Your task to perform on an android device: open sync settings in chrome Image 0: 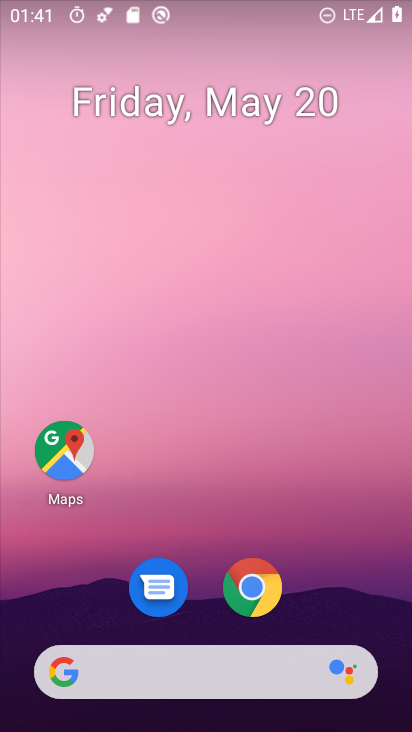
Step 0: drag from (347, 612) to (365, 235)
Your task to perform on an android device: open sync settings in chrome Image 1: 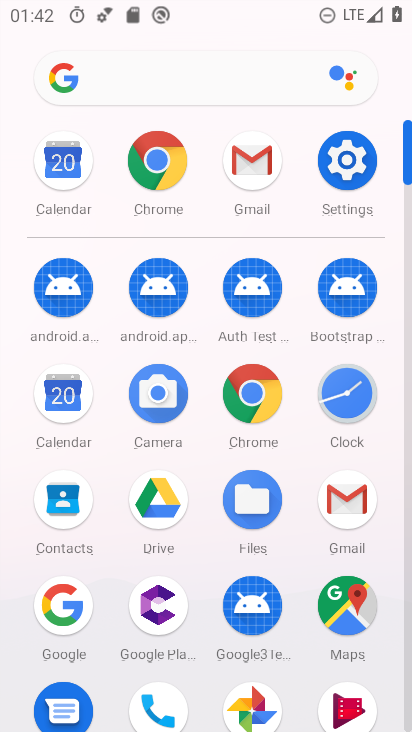
Step 1: click (253, 397)
Your task to perform on an android device: open sync settings in chrome Image 2: 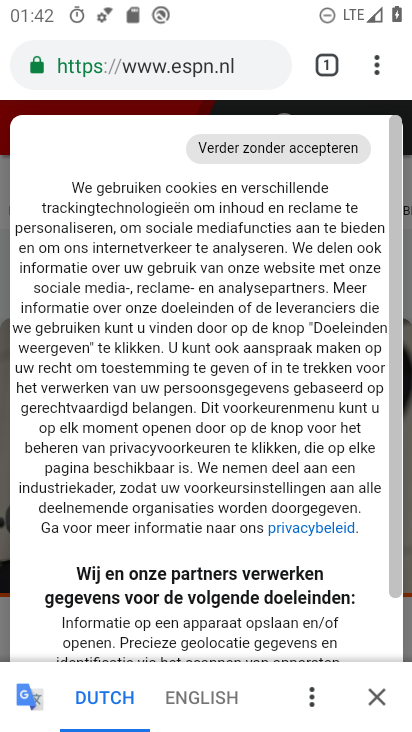
Step 2: click (377, 74)
Your task to perform on an android device: open sync settings in chrome Image 3: 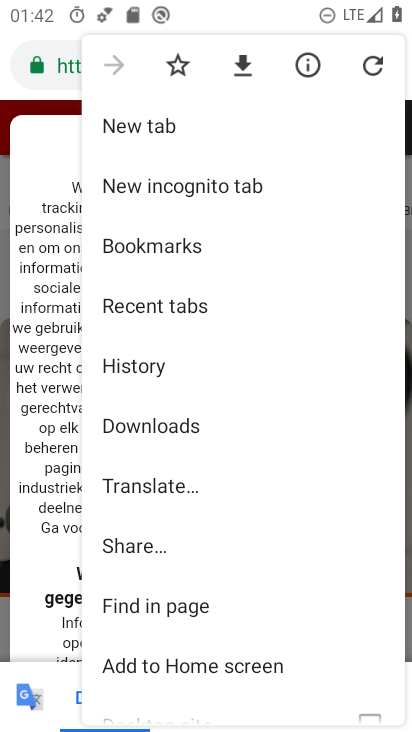
Step 3: drag from (304, 416) to (302, 233)
Your task to perform on an android device: open sync settings in chrome Image 4: 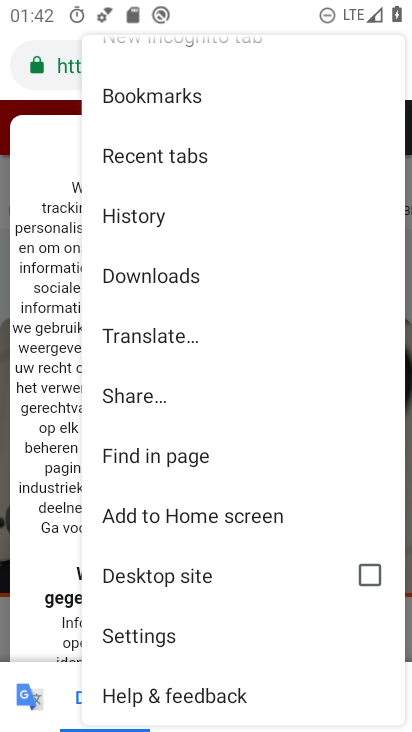
Step 4: drag from (322, 450) to (332, 261)
Your task to perform on an android device: open sync settings in chrome Image 5: 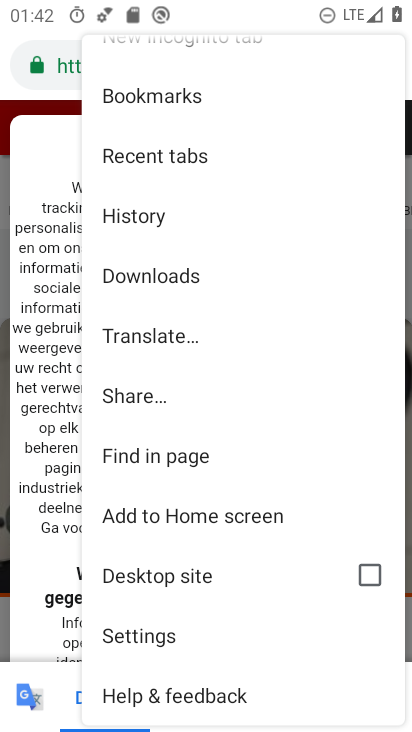
Step 5: drag from (326, 492) to (323, 265)
Your task to perform on an android device: open sync settings in chrome Image 6: 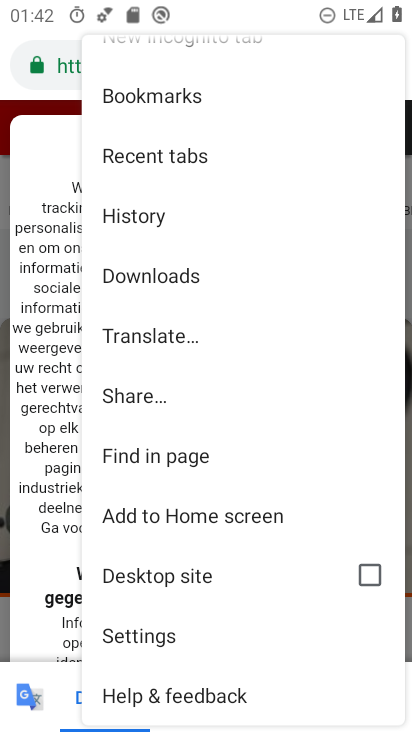
Step 6: click (165, 634)
Your task to perform on an android device: open sync settings in chrome Image 7: 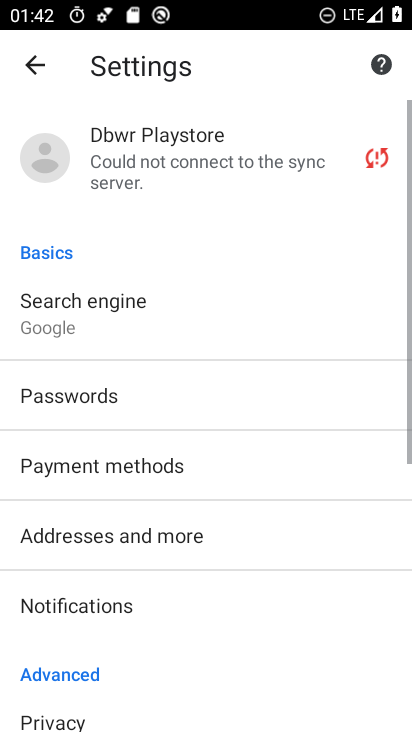
Step 7: drag from (280, 572) to (294, 474)
Your task to perform on an android device: open sync settings in chrome Image 8: 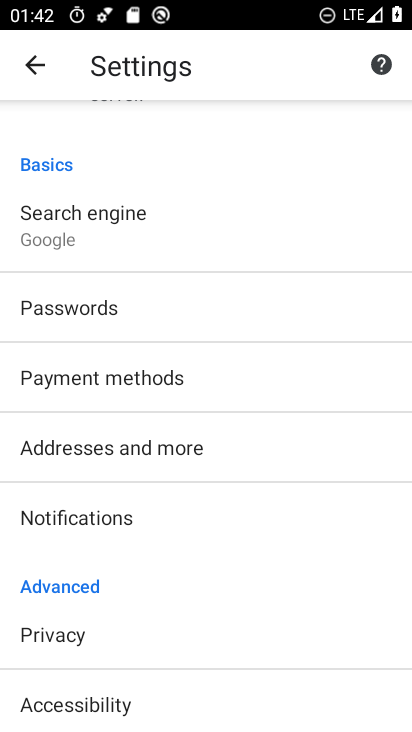
Step 8: drag from (299, 582) to (303, 543)
Your task to perform on an android device: open sync settings in chrome Image 9: 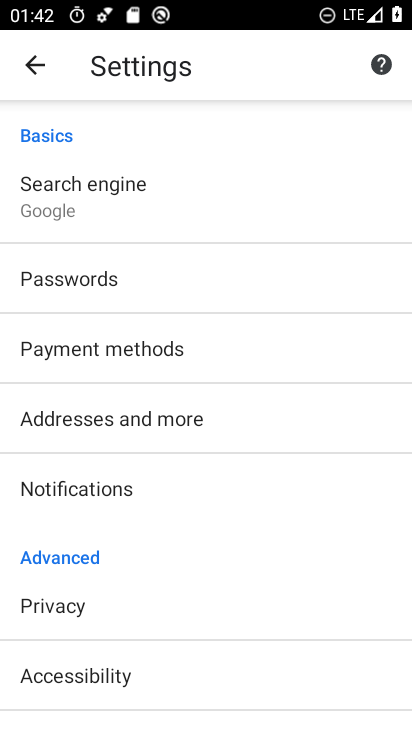
Step 9: drag from (298, 601) to (303, 496)
Your task to perform on an android device: open sync settings in chrome Image 10: 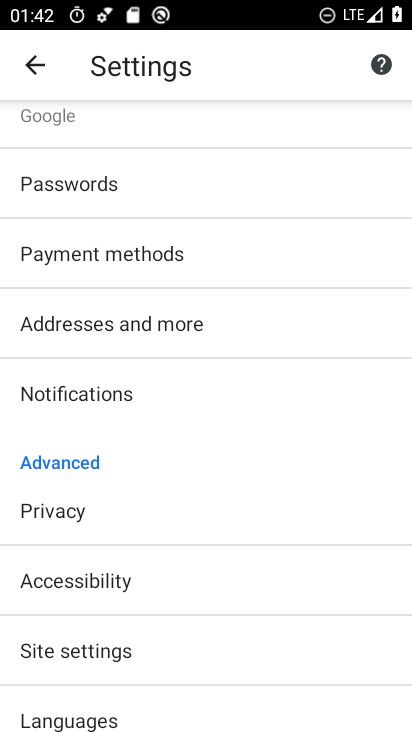
Step 10: drag from (334, 627) to (330, 541)
Your task to perform on an android device: open sync settings in chrome Image 11: 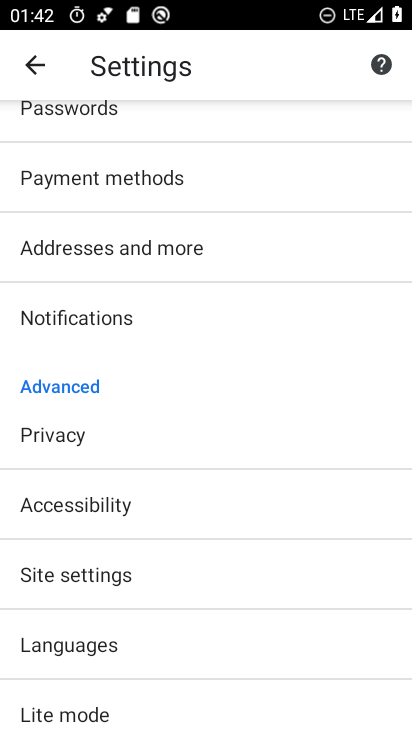
Step 11: drag from (318, 656) to (335, 561)
Your task to perform on an android device: open sync settings in chrome Image 12: 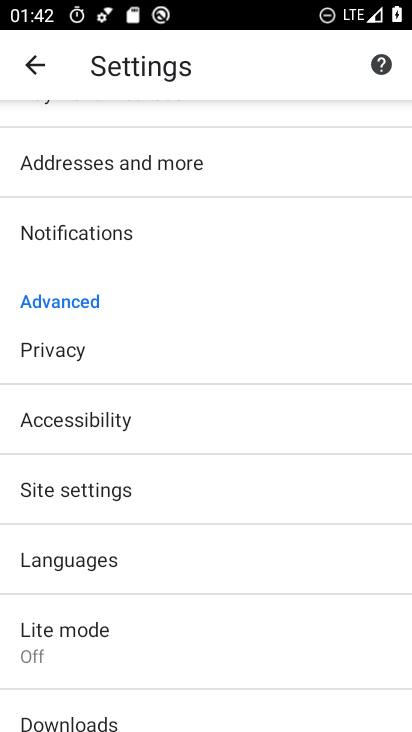
Step 12: drag from (318, 659) to (319, 582)
Your task to perform on an android device: open sync settings in chrome Image 13: 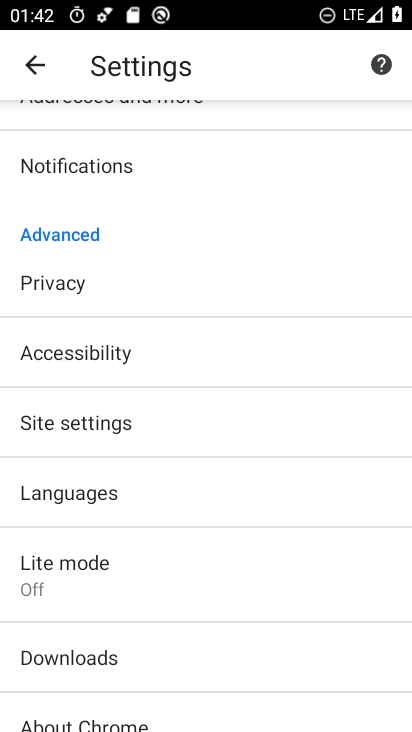
Step 13: drag from (317, 657) to (322, 585)
Your task to perform on an android device: open sync settings in chrome Image 14: 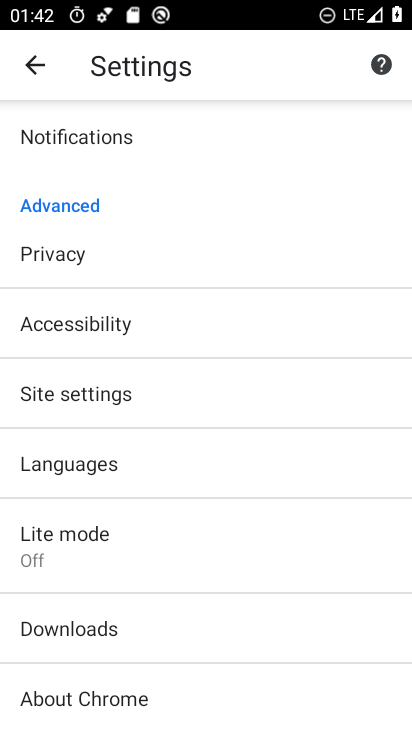
Step 14: drag from (326, 649) to (322, 583)
Your task to perform on an android device: open sync settings in chrome Image 15: 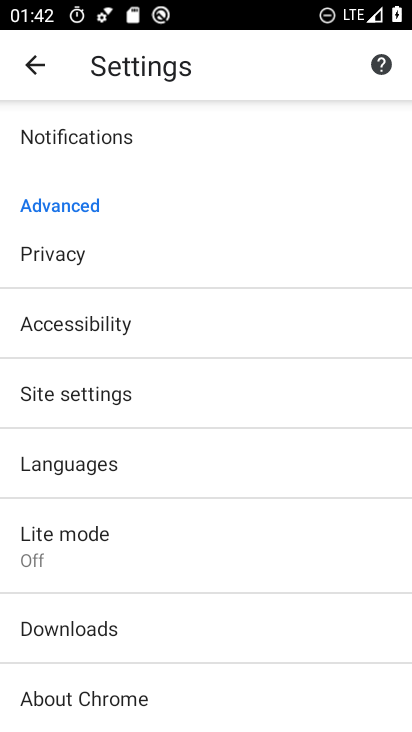
Step 15: drag from (309, 647) to (314, 567)
Your task to perform on an android device: open sync settings in chrome Image 16: 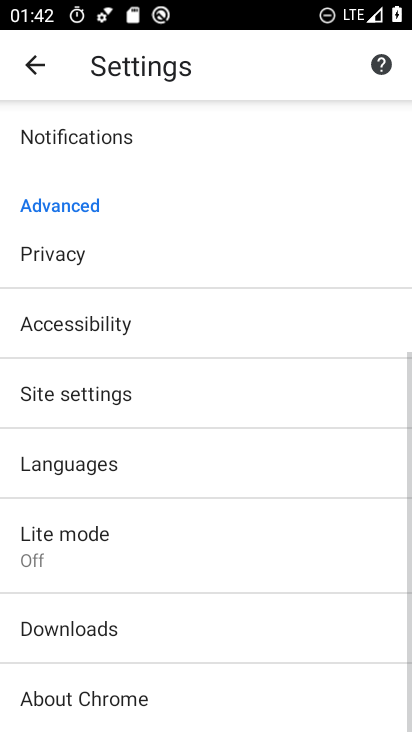
Step 16: drag from (338, 391) to (334, 469)
Your task to perform on an android device: open sync settings in chrome Image 17: 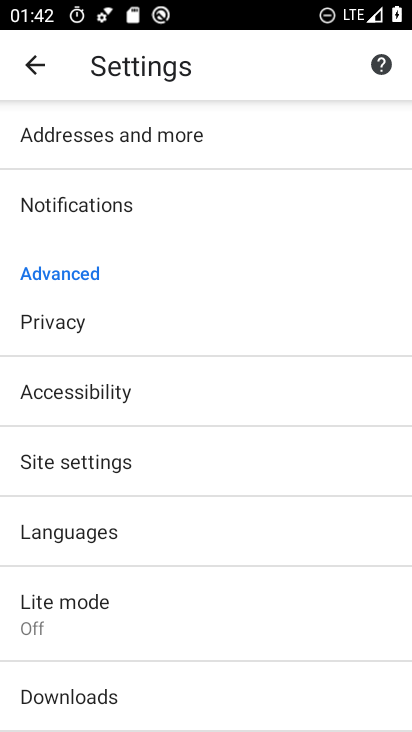
Step 17: drag from (338, 349) to (342, 406)
Your task to perform on an android device: open sync settings in chrome Image 18: 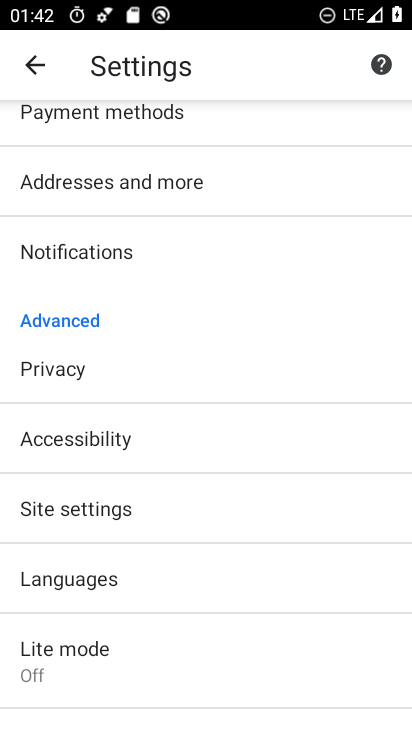
Step 18: drag from (333, 302) to (327, 366)
Your task to perform on an android device: open sync settings in chrome Image 19: 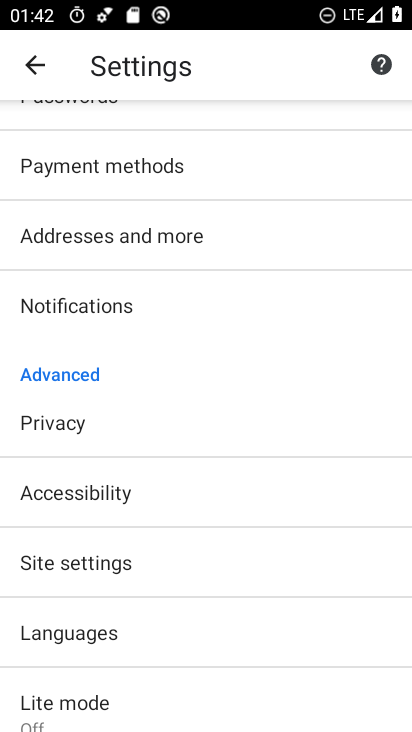
Step 19: drag from (321, 309) to (321, 364)
Your task to perform on an android device: open sync settings in chrome Image 20: 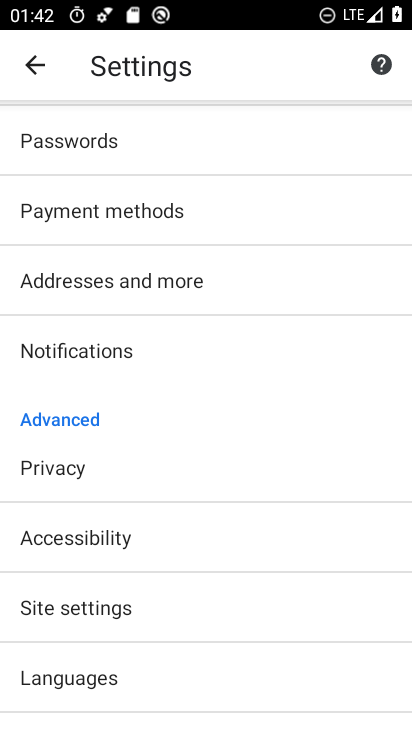
Step 20: click (219, 626)
Your task to perform on an android device: open sync settings in chrome Image 21: 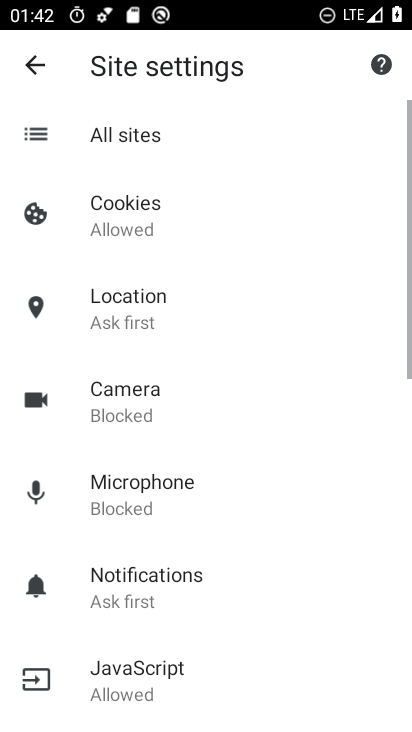
Step 21: drag from (230, 654) to (235, 569)
Your task to perform on an android device: open sync settings in chrome Image 22: 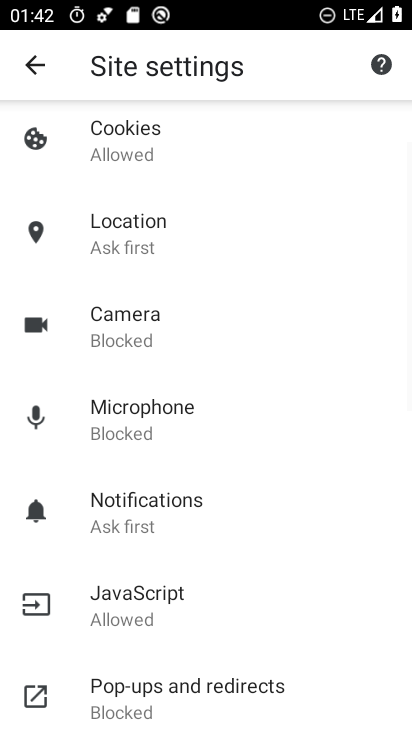
Step 22: drag from (250, 641) to (257, 534)
Your task to perform on an android device: open sync settings in chrome Image 23: 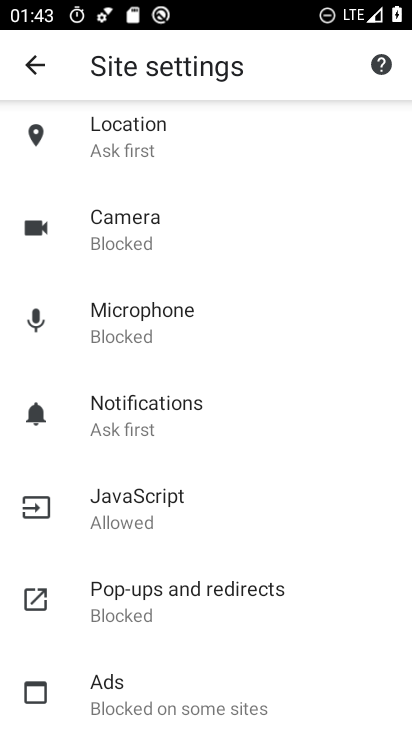
Step 23: drag from (262, 648) to (271, 543)
Your task to perform on an android device: open sync settings in chrome Image 24: 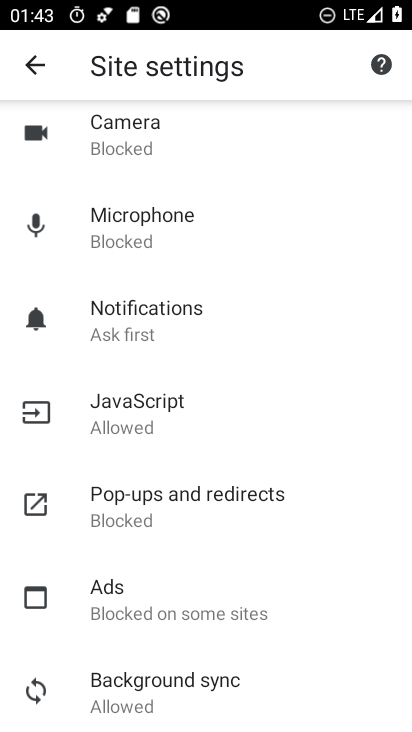
Step 24: drag from (291, 666) to (298, 576)
Your task to perform on an android device: open sync settings in chrome Image 25: 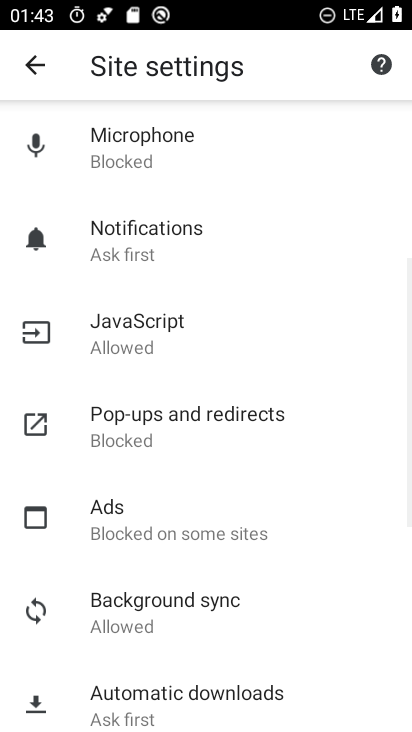
Step 25: click (193, 611)
Your task to perform on an android device: open sync settings in chrome Image 26: 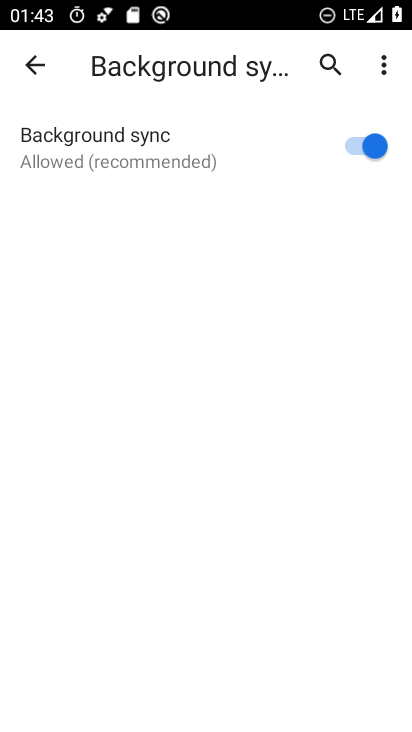
Step 26: task complete